Your task to perform on an android device: Show me productivity apps on the Play Store Image 0: 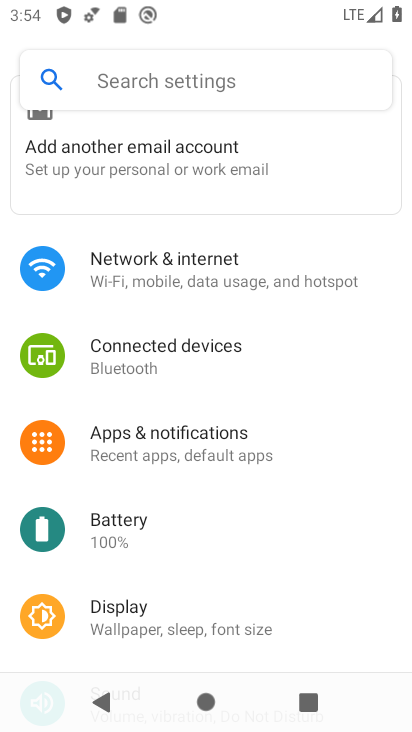
Step 0: press home button
Your task to perform on an android device: Show me productivity apps on the Play Store Image 1: 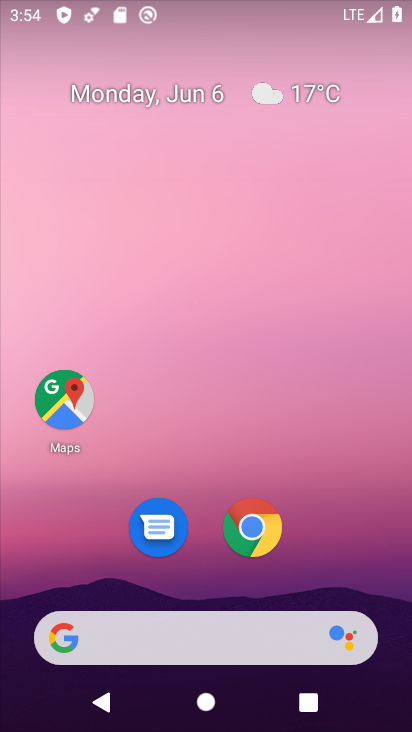
Step 1: drag from (372, 470) to (160, 611)
Your task to perform on an android device: Show me productivity apps on the Play Store Image 2: 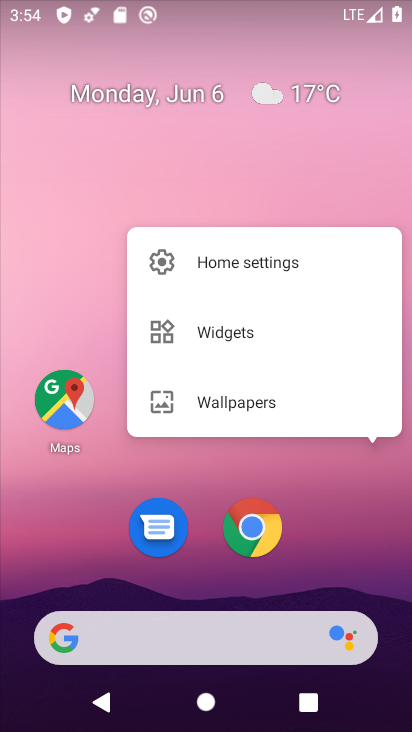
Step 2: click (97, 166)
Your task to perform on an android device: Show me productivity apps on the Play Store Image 3: 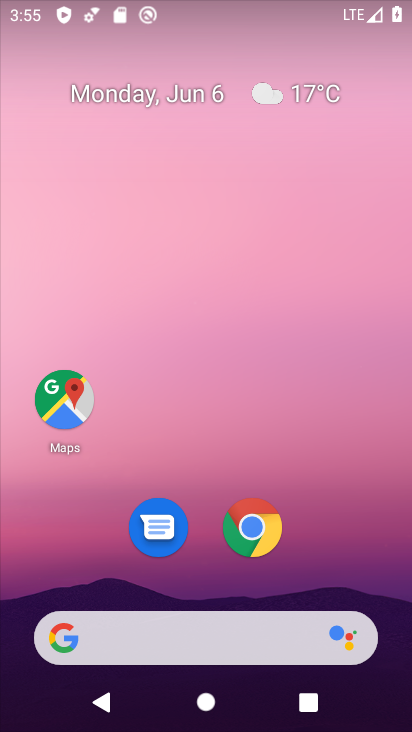
Step 3: drag from (324, 544) to (370, 149)
Your task to perform on an android device: Show me productivity apps on the Play Store Image 4: 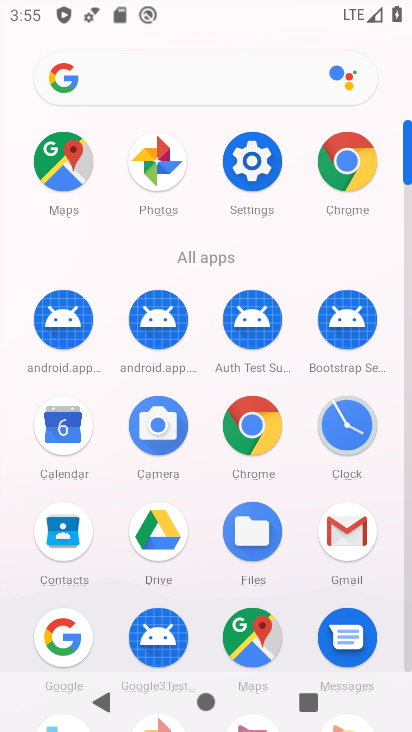
Step 4: click (400, 339)
Your task to perform on an android device: Show me productivity apps on the Play Store Image 5: 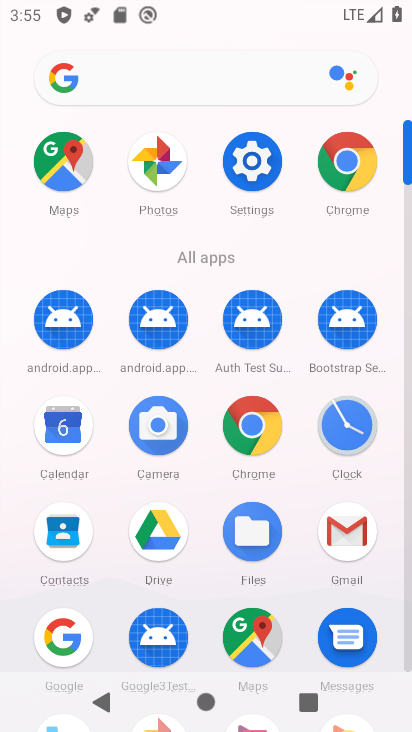
Step 5: click (404, 343)
Your task to perform on an android device: Show me productivity apps on the Play Store Image 6: 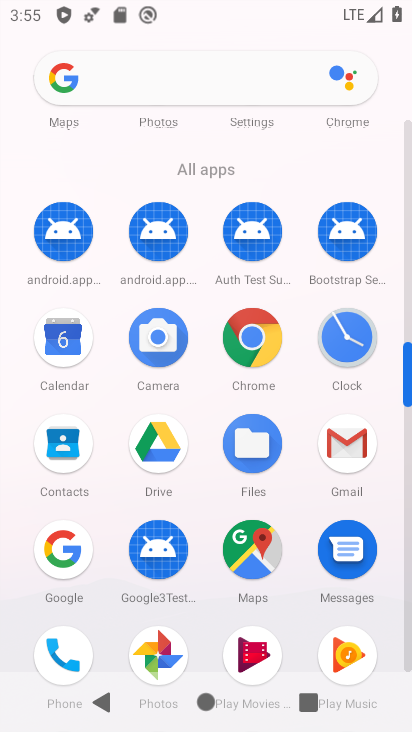
Step 6: click (403, 491)
Your task to perform on an android device: Show me productivity apps on the Play Store Image 7: 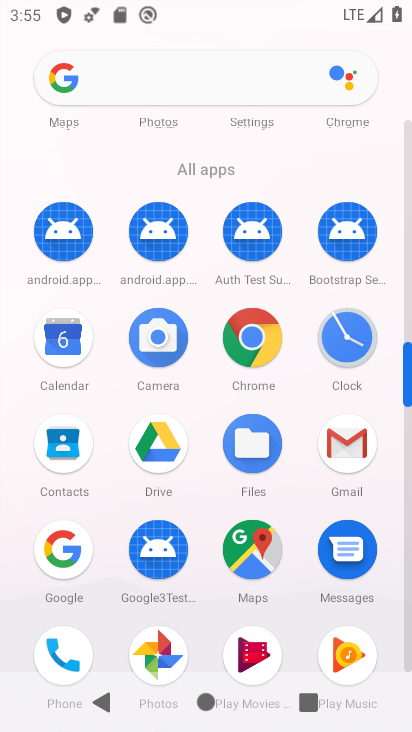
Step 7: click (403, 491)
Your task to perform on an android device: Show me productivity apps on the Play Store Image 8: 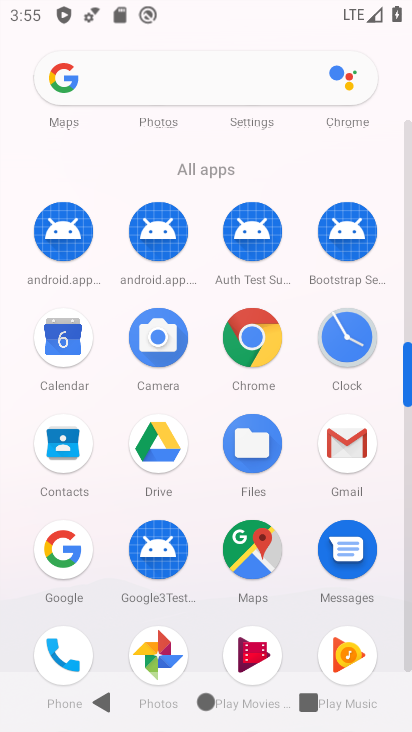
Step 8: click (403, 491)
Your task to perform on an android device: Show me productivity apps on the Play Store Image 9: 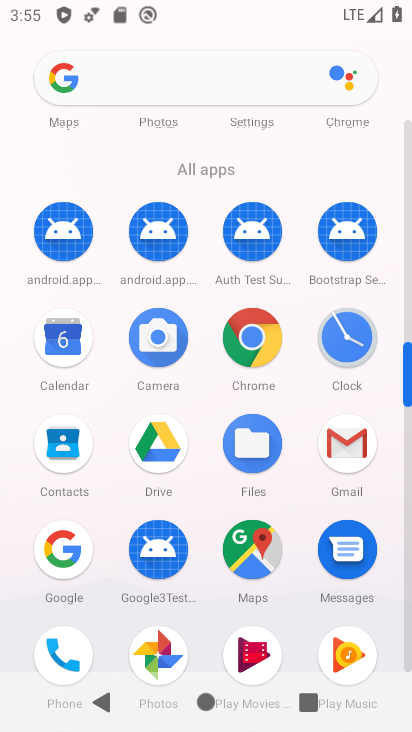
Step 9: click (410, 493)
Your task to perform on an android device: Show me productivity apps on the Play Store Image 10: 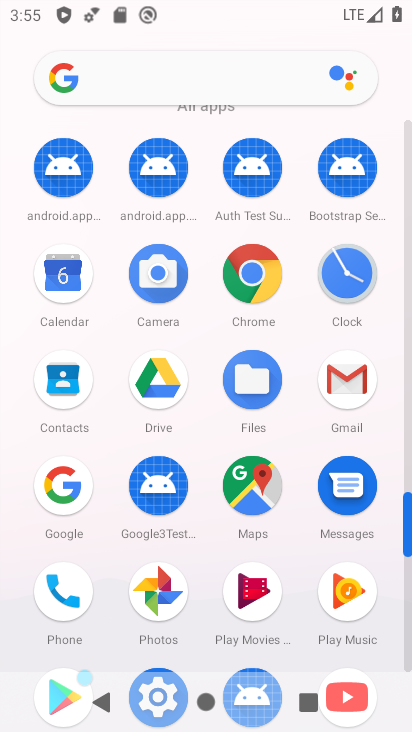
Step 10: click (407, 573)
Your task to perform on an android device: Show me productivity apps on the Play Store Image 11: 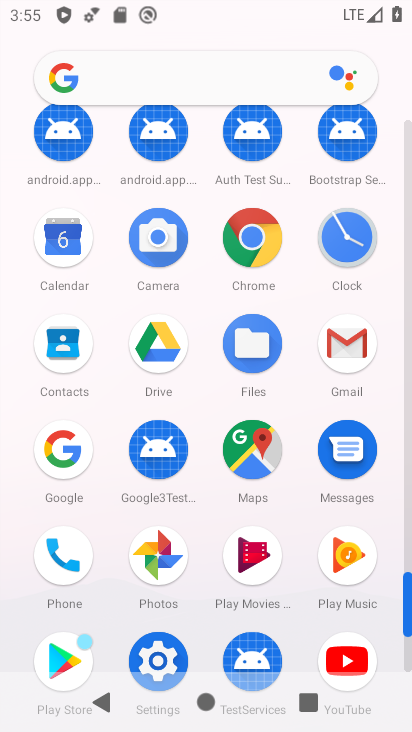
Step 11: click (45, 648)
Your task to perform on an android device: Show me productivity apps on the Play Store Image 12: 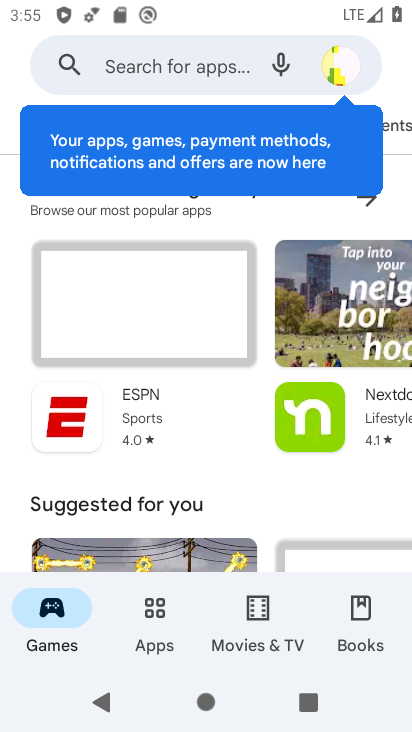
Step 12: click (159, 57)
Your task to perform on an android device: Show me productivity apps on the Play Store Image 13: 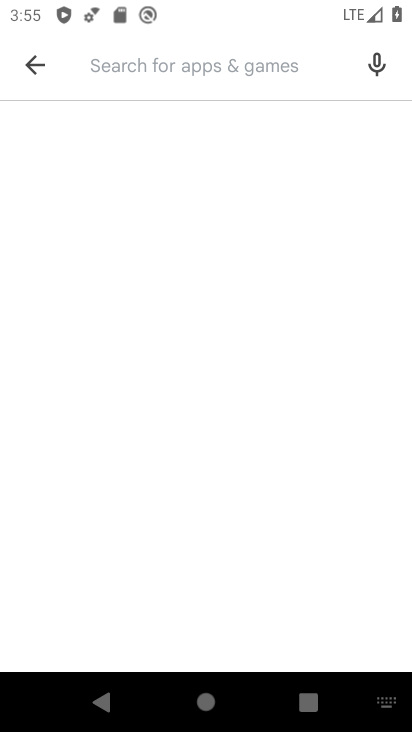
Step 13: type "Productivity apps"
Your task to perform on an android device: Show me productivity apps on the Play Store Image 14: 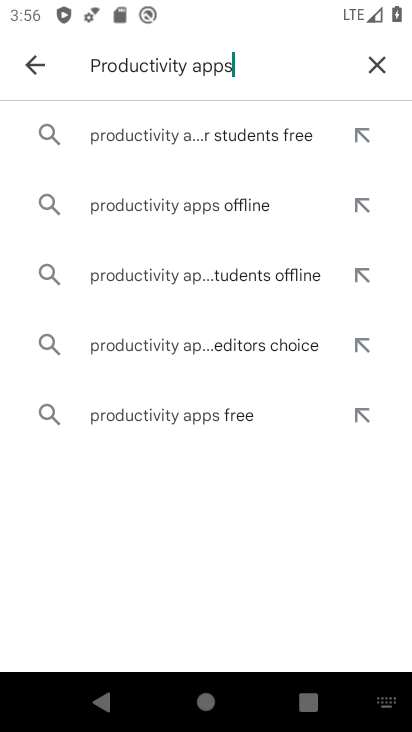
Step 14: click (220, 391)
Your task to perform on an android device: Show me productivity apps on the Play Store Image 15: 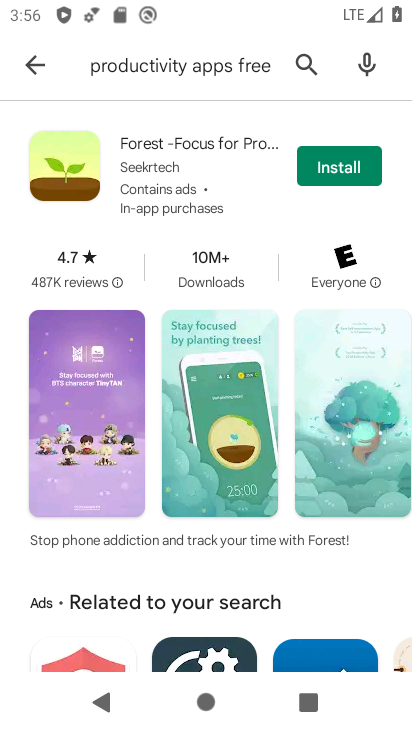
Step 15: click (262, 58)
Your task to perform on an android device: Show me productivity apps on the Play Store Image 16: 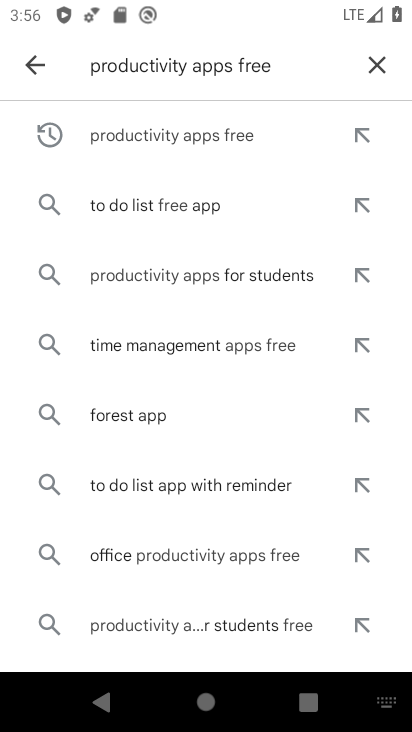
Step 16: click (365, 56)
Your task to perform on an android device: Show me productivity apps on the Play Store Image 17: 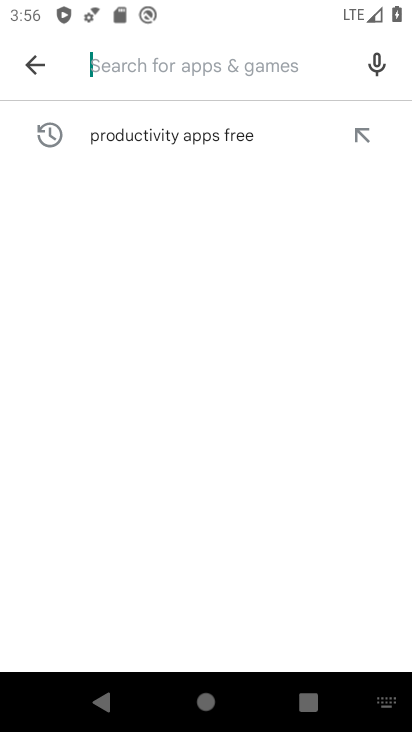
Step 17: type "Productivity app"
Your task to perform on an android device: Show me productivity apps on the Play Store Image 18: 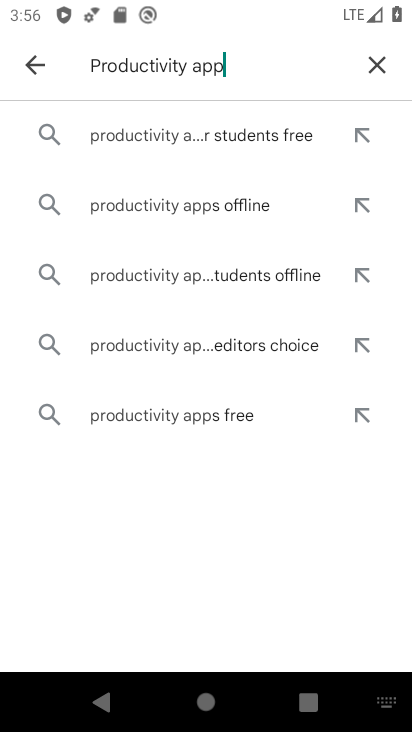
Step 18: click (212, 416)
Your task to perform on an android device: Show me productivity apps on the Play Store Image 19: 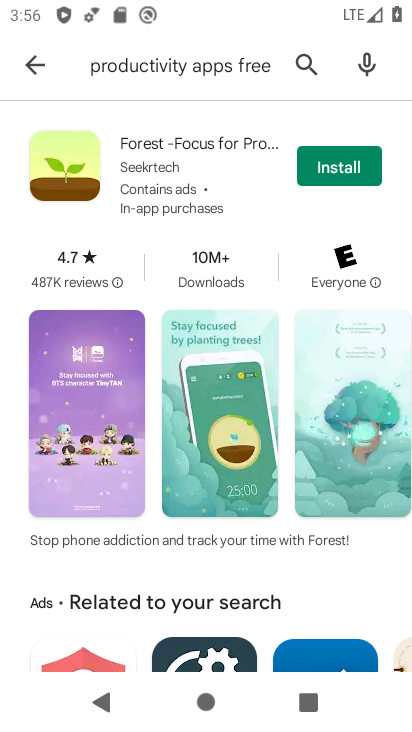
Step 19: task complete